Your task to perform on an android device: Go to network settings Image 0: 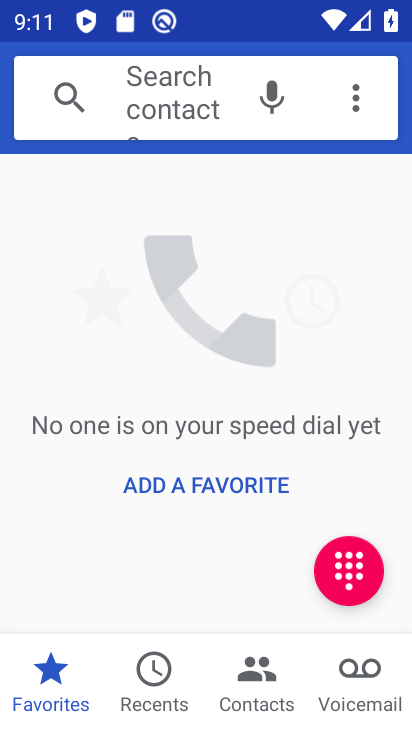
Step 0: press home button
Your task to perform on an android device: Go to network settings Image 1: 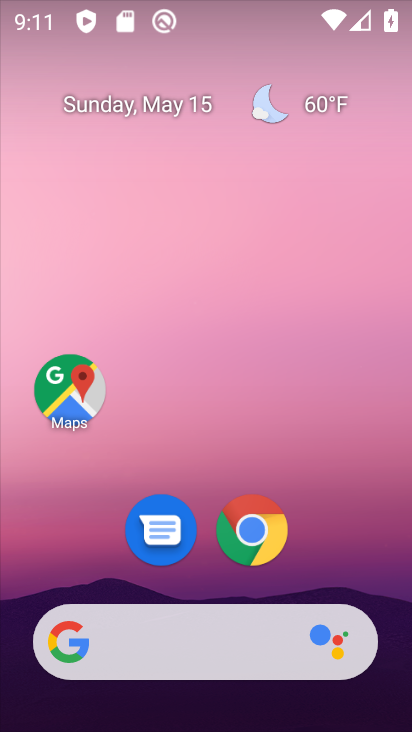
Step 1: drag from (393, 543) to (367, 193)
Your task to perform on an android device: Go to network settings Image 2: 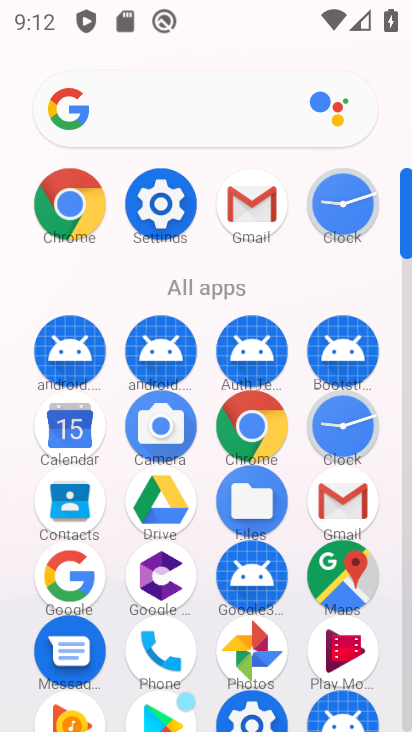
Step 2: click (160, 207)
Your task to perform on an android device: Go to network settings Image 3: 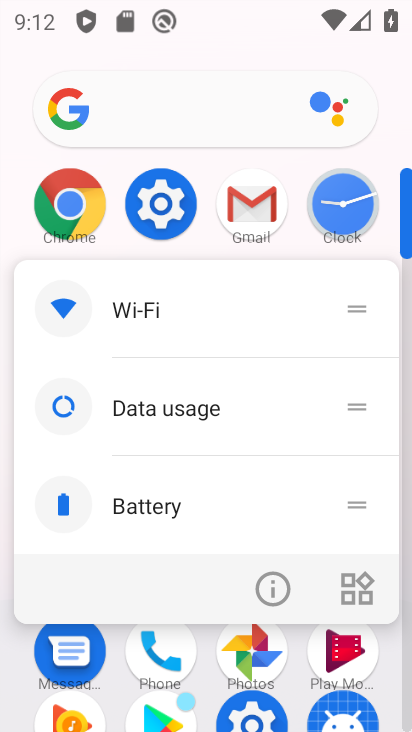
Step 3: click (160, 207)
Your task to perform on an android device: Go to network settings Image 4: 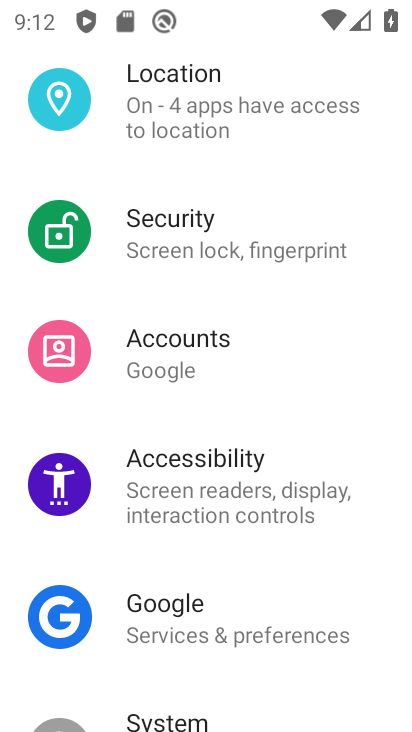
Step 4: drag from (370, 311) to (376, 589)
Your task to perform on an android device: Go to network settings Image 5: 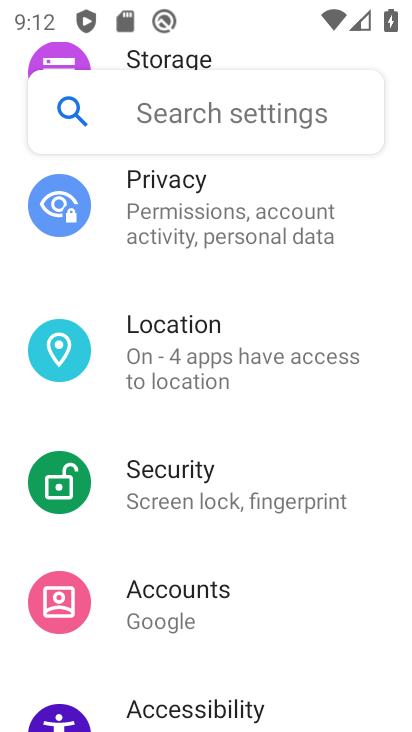
Step 5: drag from (371, 210) to (360, 485)
Your task to perform on an android device: Go to network settings Image 6: 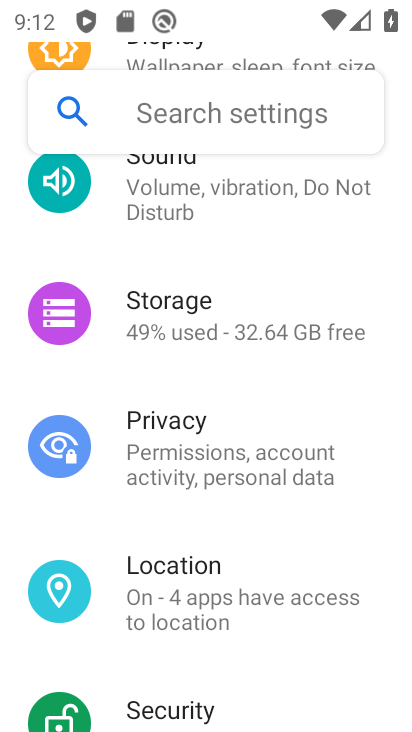
Step 6: drag from (379, 226) to (375, 475)
Your task to perform on an android device: Go to network settings Image 7: 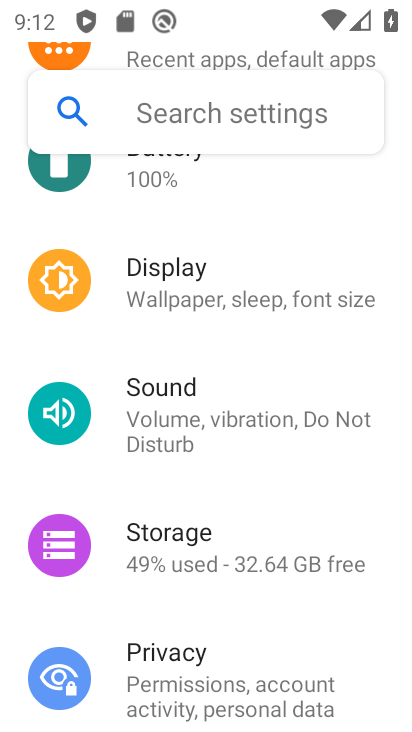
Step 7: drag from (374, 206) to (350, 465)
Your task to perform on an android device: Go to network settings Image 8: 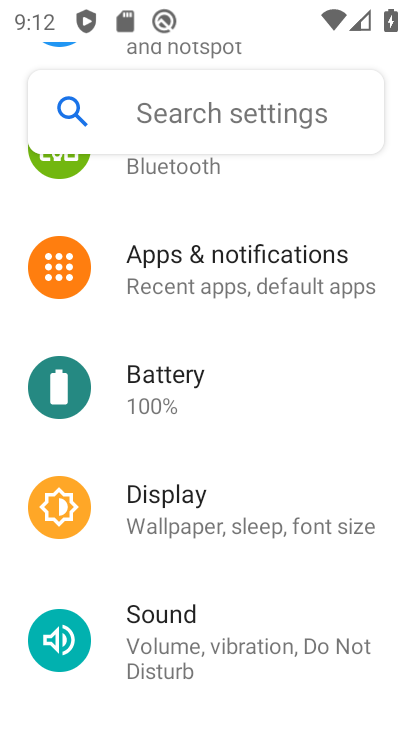
Step 8: drag from (382, 216) to (383, 504)
Your task to perform on an android device: Go to network settings Image 9: 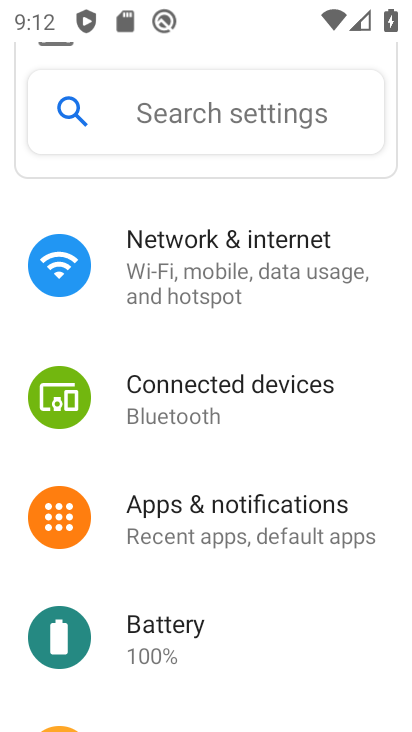
Step 9: drag from (388, 212) to (388, 450)
Your task to perform on an android device: Go to network settings Image 10: 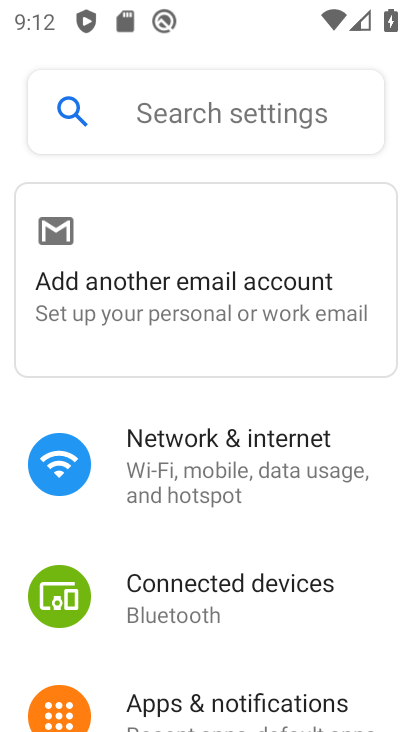
Step 10: click (300, 466)
Your task to perform on an android device: Go to network settings Image 11: 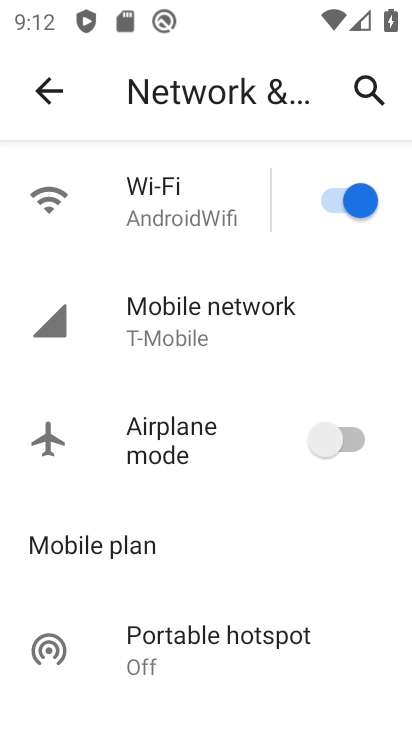
Step 11: task complete